Your task to perform on an android device: toggle data saver in the chrome app Image 0: 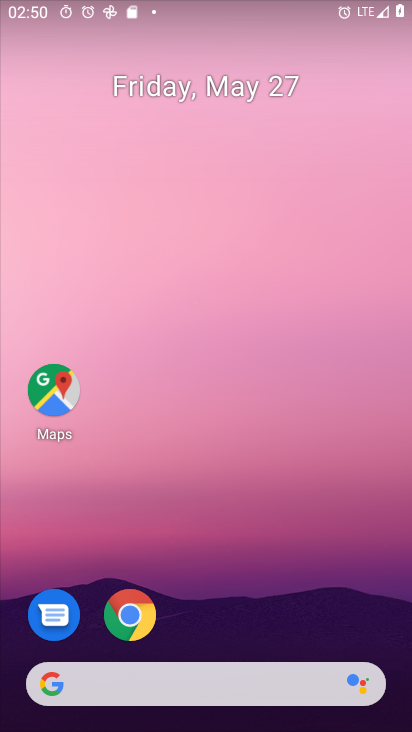
Step 0: drag from (349, 639) to (355, 222)
Your task to perform on an android device: toggle data saver in the chrome app Image 1: 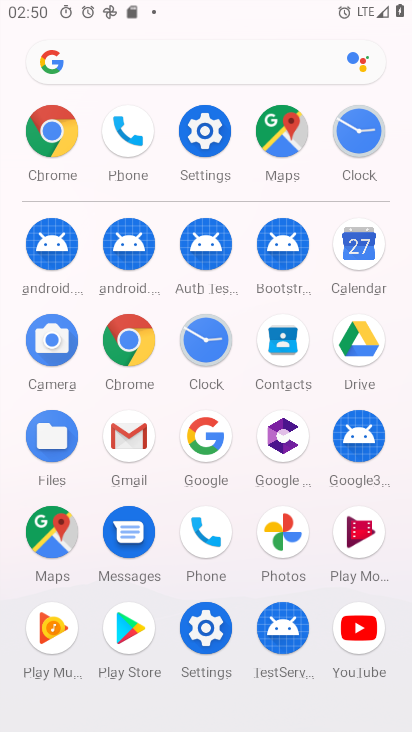
Step 1: click (130, 355)
Your task to perform on an android device: toggle data saver in the chrome app Image 2: 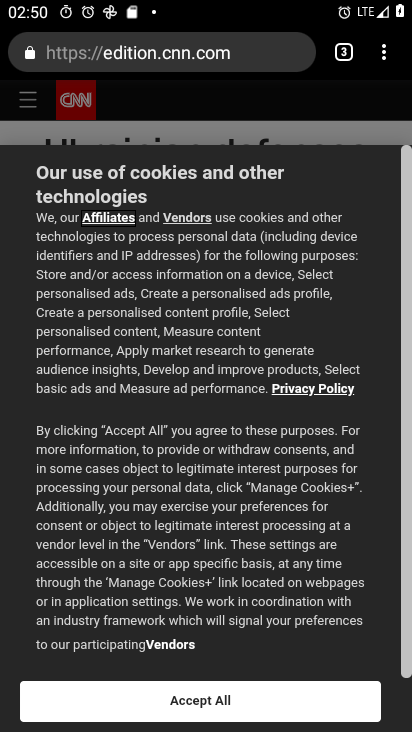
Step 2: click (383, 66)
Your task to perform on an android device: toggle data saver in the chrome app Image 3: 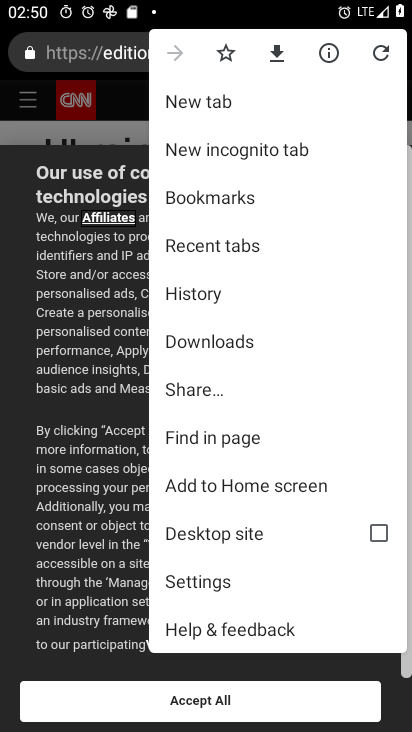
Step 3: click (262, 592)
Your task to perform on an android device: toggle data saver in the chrome app Image 4: 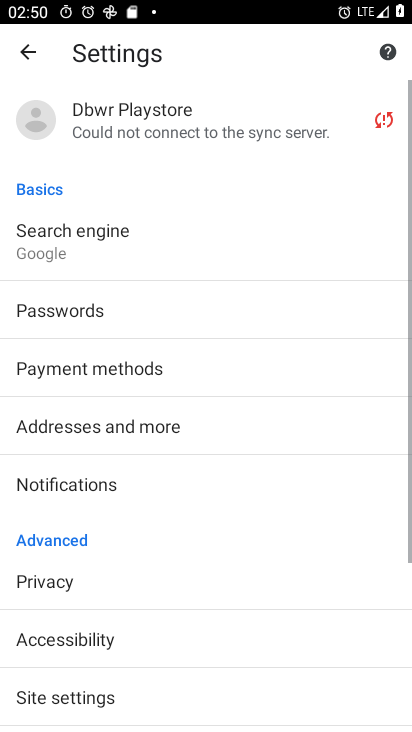
Step 4: drag from (262, 592) to (256, 502)
Your task to perform on an android device: toggle data saver in the chrome app Image 5: 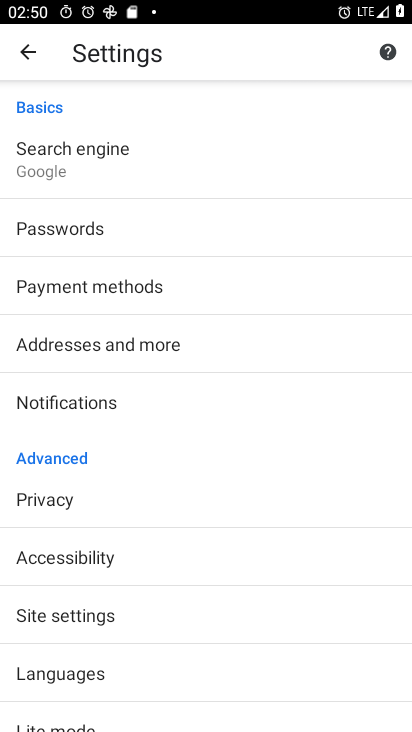
Step 5: drag from (274, 602) to (271, 473)
Your task to perform on an android device: toggle data saver in the chrome app Image 6: 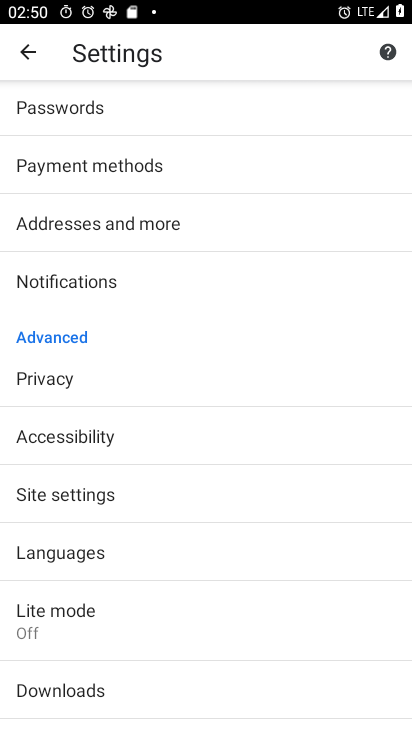
Step 6: drag from (247, 603) to (244, 458)
Your task to perform on an android device: toggle data saver in the chrome app Image 7: 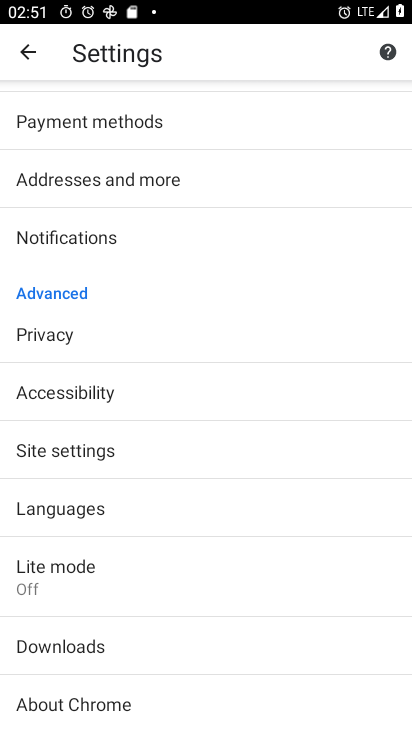
Step 7: click (172, 586)
Your task to perform on an android device: toggle data saver in the chrome app Image 8: 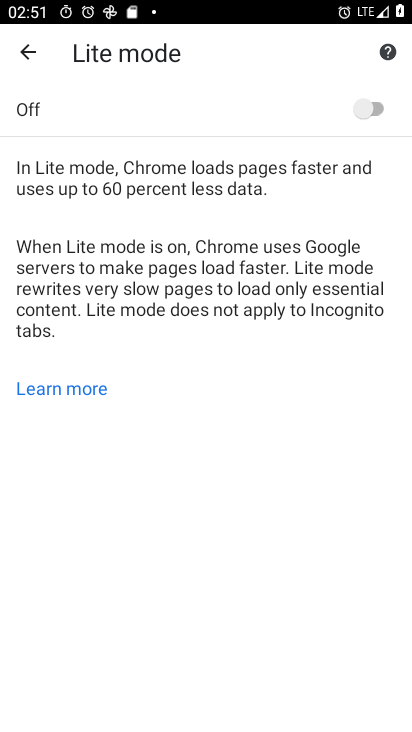
Step 8: click (362, 113)
Your task to perform on an android device: toggle data saver in the chrome app Image 9: 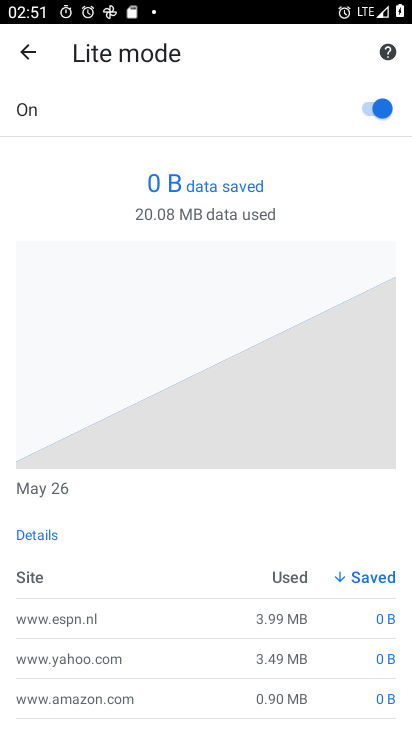
Step 9: task complete